Your task to perform on an android device: Check the price on the Dyson V11 Motorhead on Best Buy Image 0: 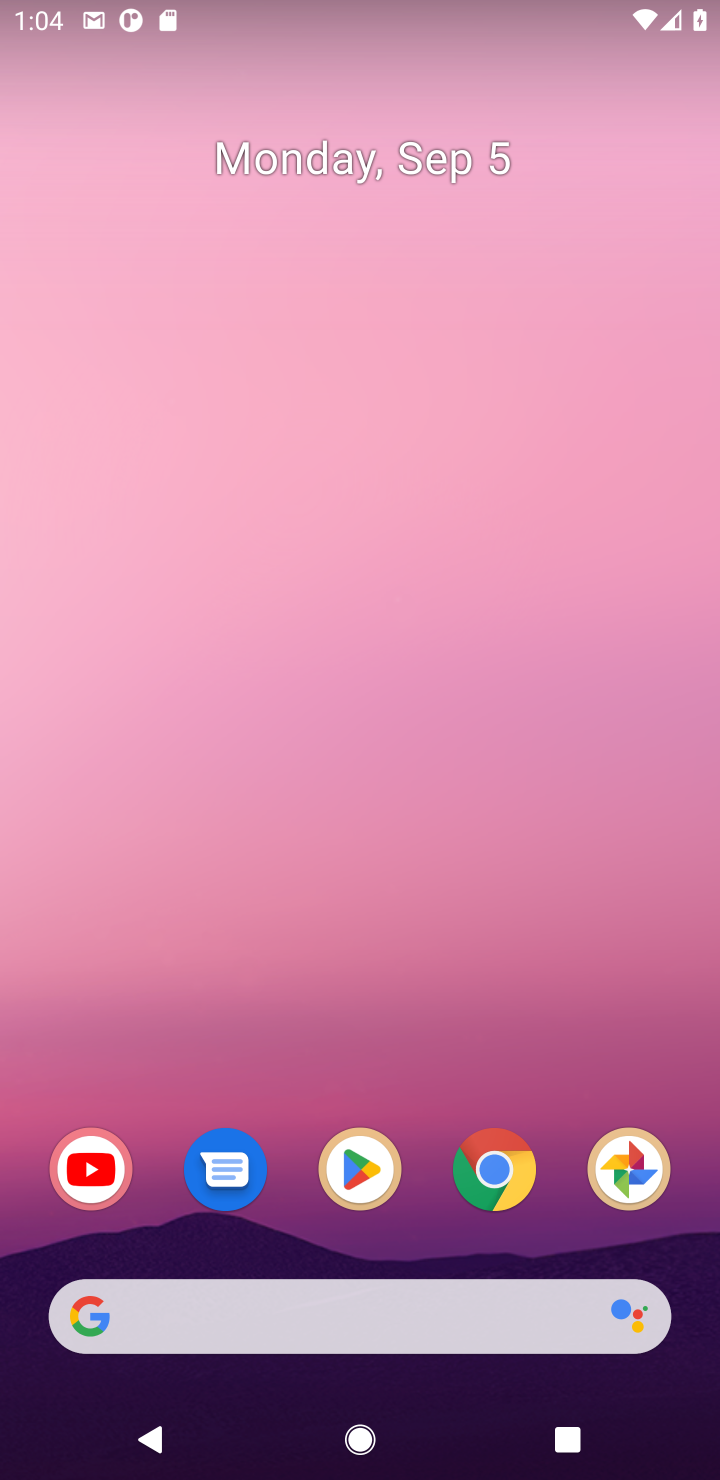
Step 0: click (619, 1152)
Your task to perform on an android device: Check the price on the Dyson V11 Motorhead on Best Buy Image 1: 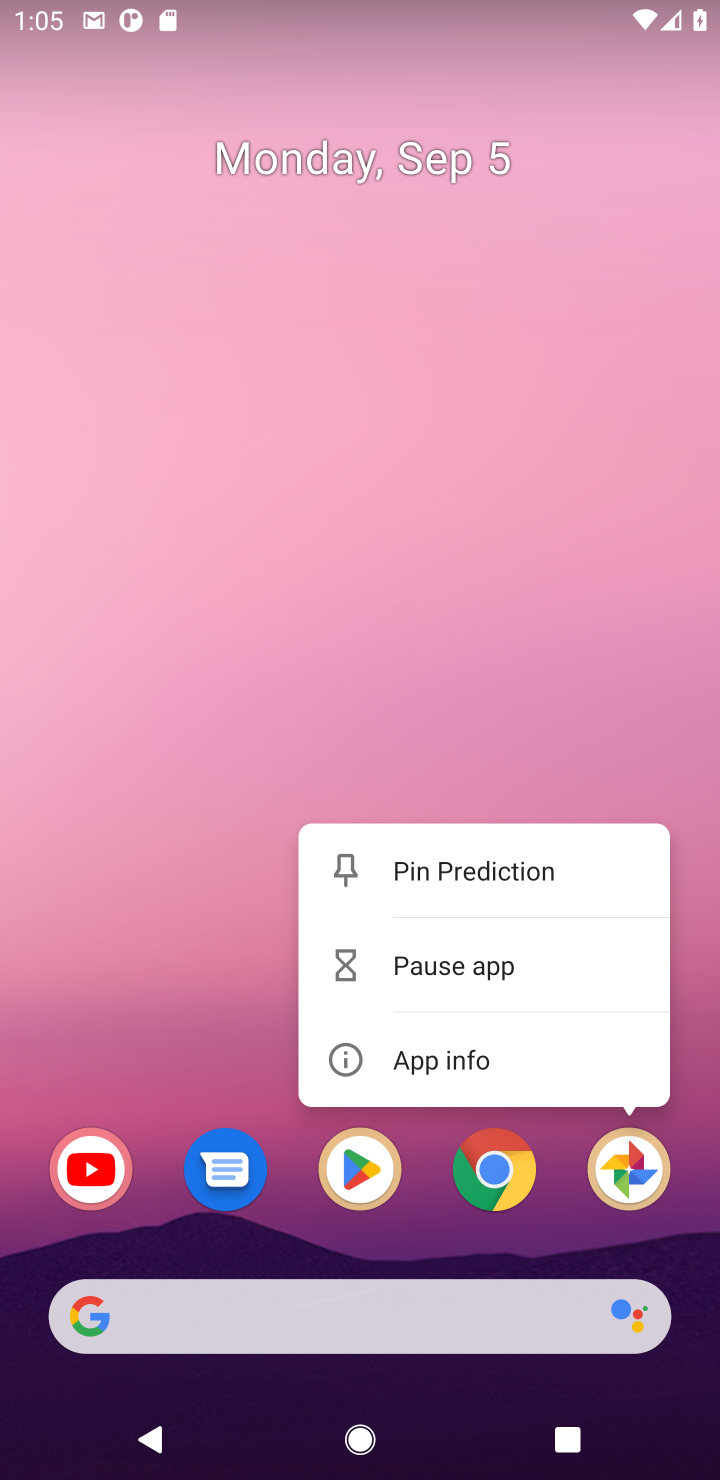
Step 1: click (72, 1184)
Your task to perform on an android device: Check the price on the Dyson V11 Motorhead on Best Buy Image 2: 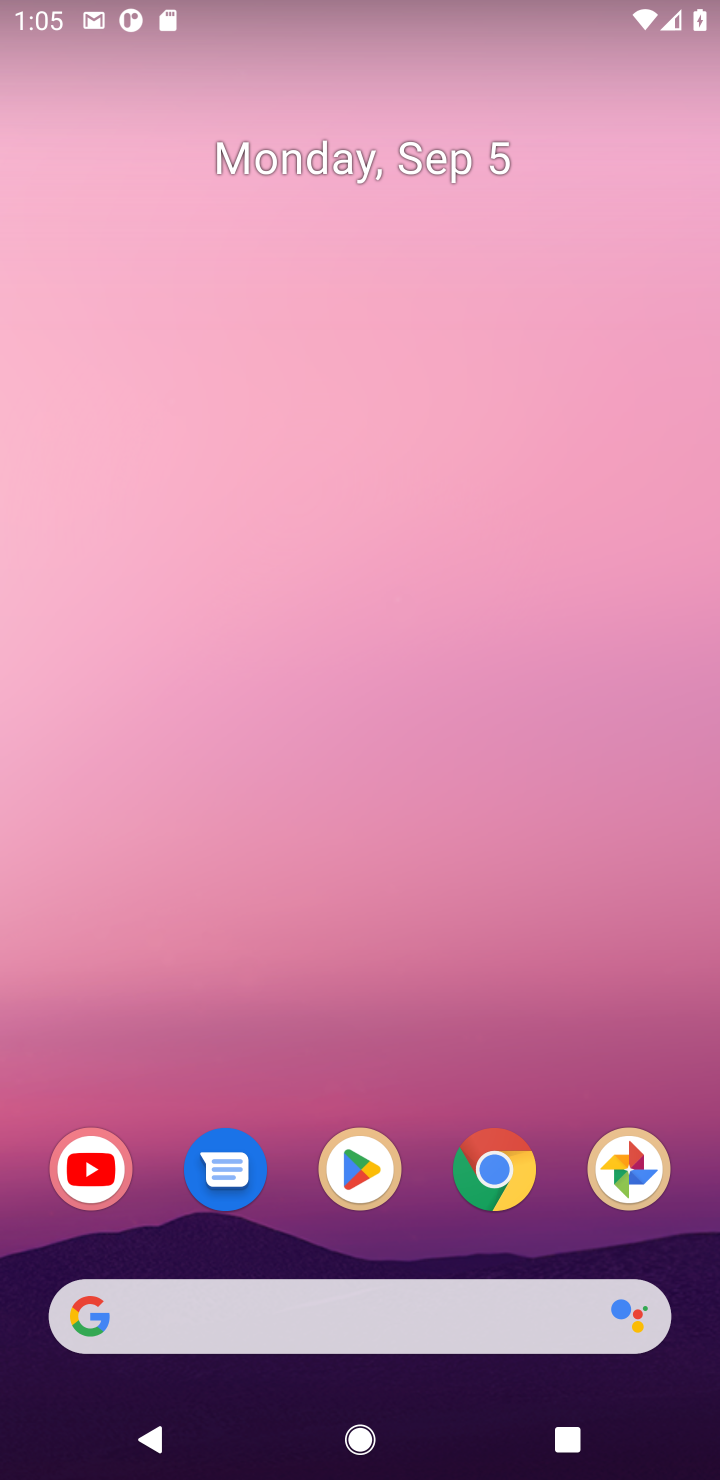
Step 2: click (126, 1141)
Your task to perform on an android device: Check the price on the Dyson V11 Motorhead on Best Buy Image 3: 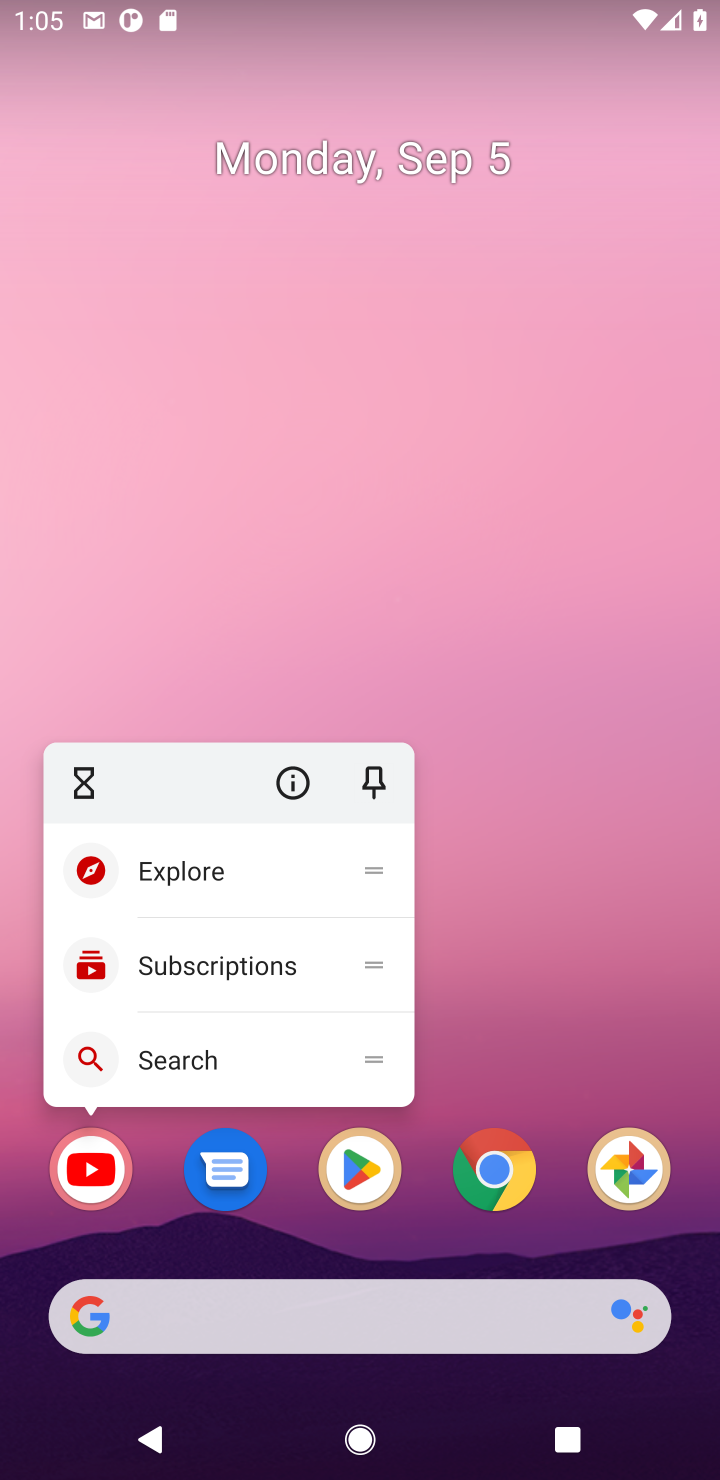
Step 3: task complete